Your task to perform on an android device: turn vacation reply on in the gmail app Image 0: 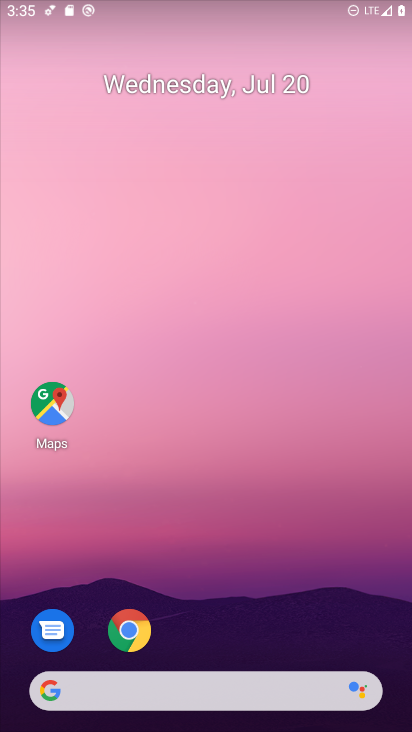
Step 0: press home button
Your task to perform on an android device: turn vacation reply on in the gmail app Image 1: 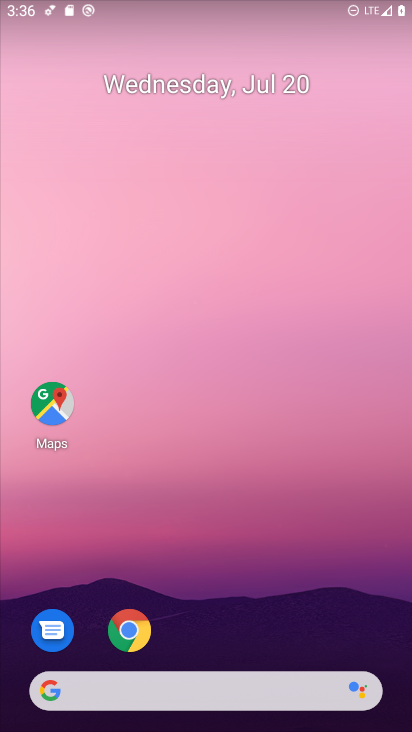
Step 1: drag from (228, 621) to (239, 142)
Your task to perform on an android device: turn vacation reply on in the gmail app Image 2: 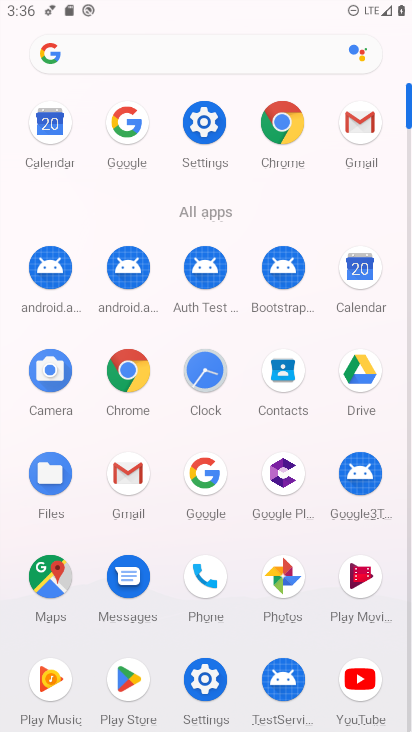
Step 2: click (129, 474)
Your task to perform on an android device: turn vacation reply on in the gmail app Image 3: 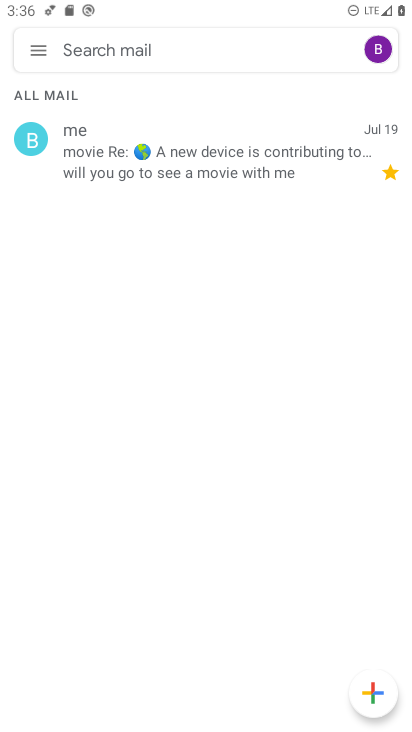
Step 3: click (38, 50)
Your task to perform on an android device: turn vacation reply on in the gmail app Image 4: 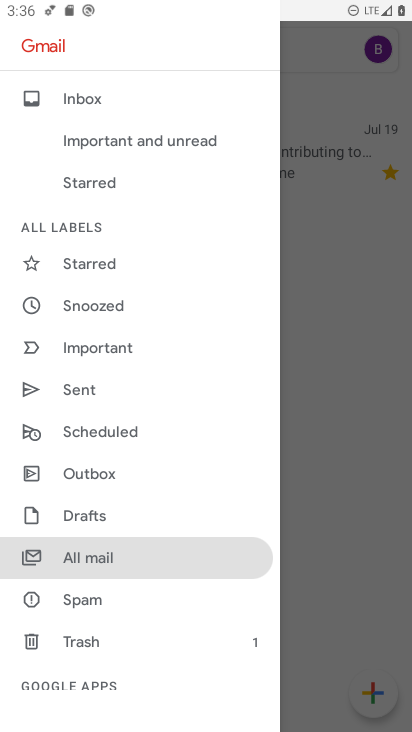
Step 4: drag from (106, 666) to (133, 163)
Your task to perform on an android device: turn vacation reply on in the gmail app Image 5: 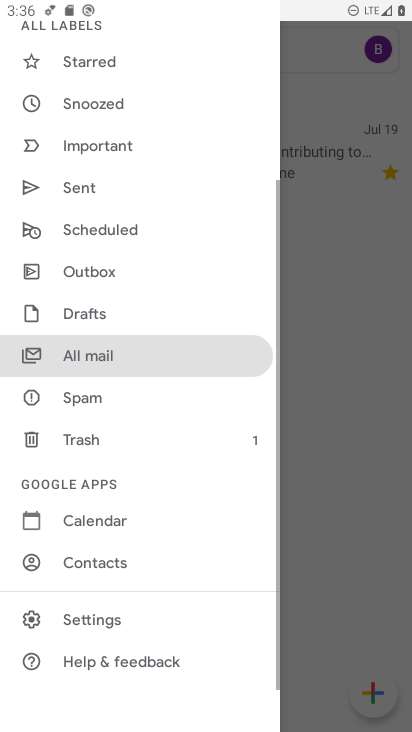
Step 5: click (118, 607)
Your task to perform on an android device: turn vacation reply on in the gmail app Image 6: 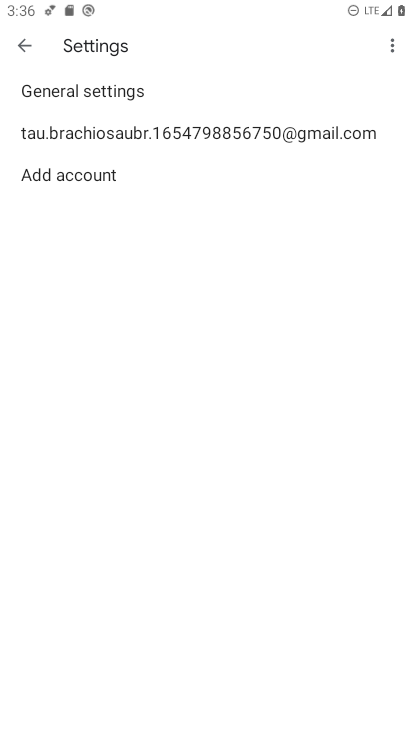
Step 6: click (216, 129)
Your task to perform on an android device: turn vacation reply on in the gmail app Image 7: 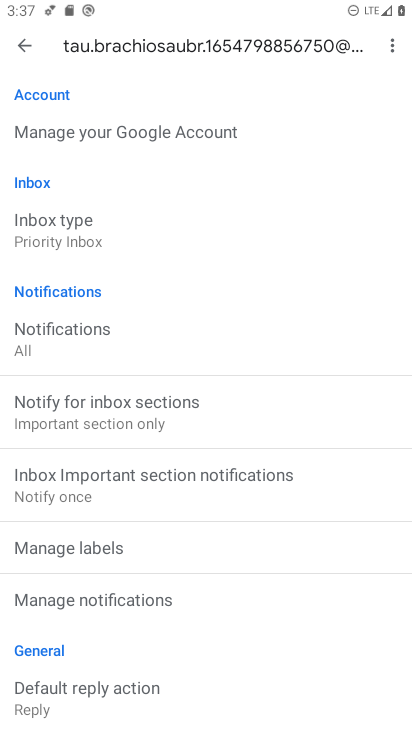
Step 7: drag from (186, 639) to (232, 243)
Your task to perform on an android device: turn vacation reply on in the gmail app Image 8: 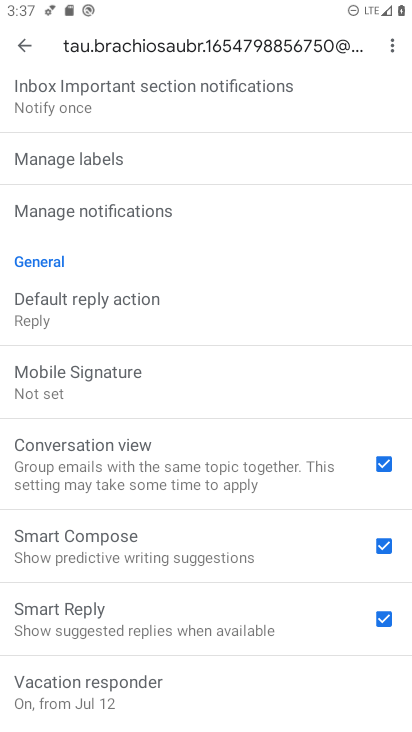
Step 8: drag from (171, 623) to (185, 339)
Your task to perform on an android device: turn vacation reply on in the gmail app Image 9: 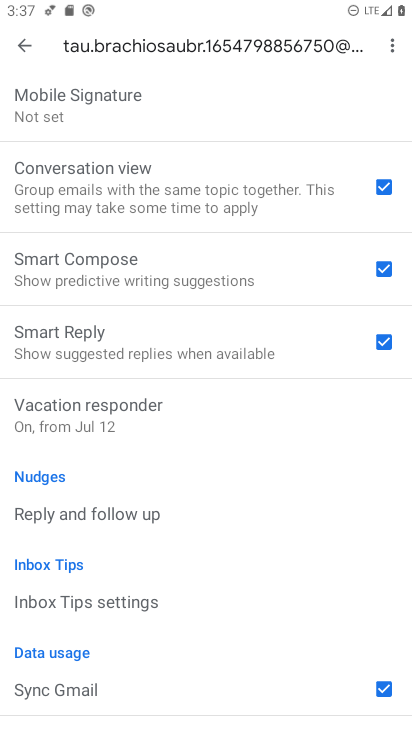
Step 9: click (127, 418)
Your task to perform on an android device: turn vacation reply on in the gmail app Image 10: 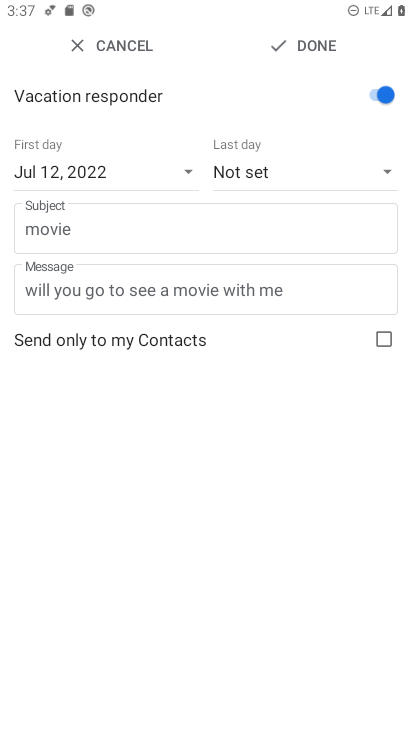
Step 10: task complete